Your task to perform on an android device: Open privacy settings Image 0: 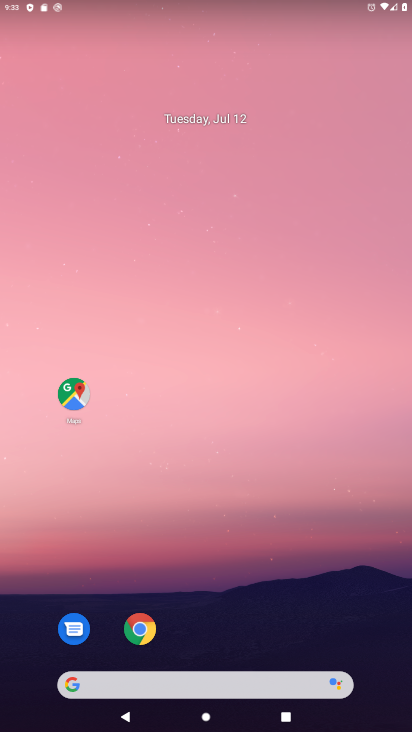
Step 0: drag from (358, 639) to (343, 151)
Your task to perform on an android device: Open privacy settings Image 1: 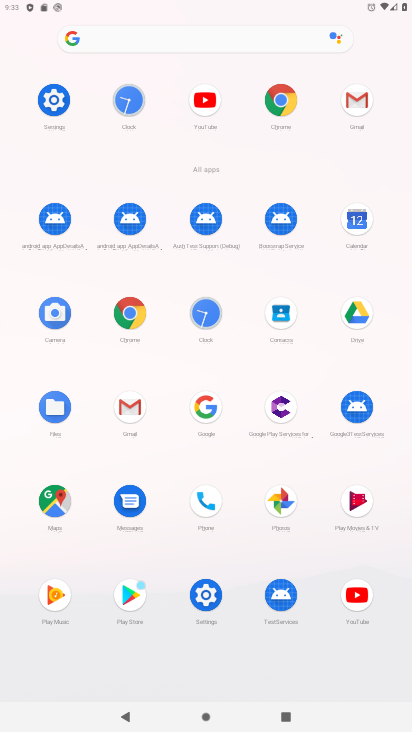
Step 1: click (203, 587)
Your task to perform on an android device: Open privacy settings Image 2: 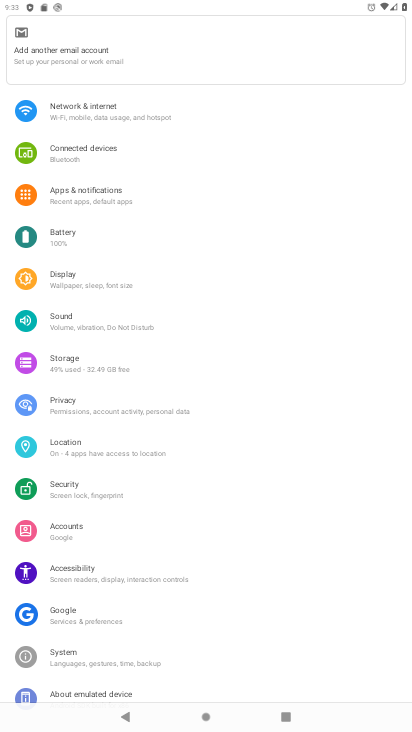
Step 2: click (68, 404)
Your task to perform on an android device: Open privacy settings Image 3: 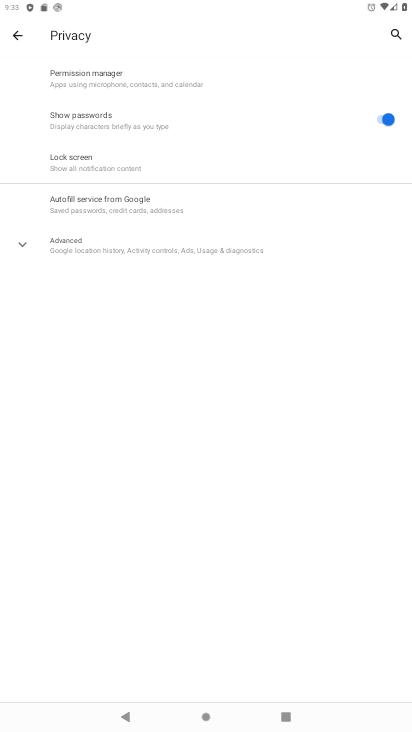
Step 3: click (26, 240)
Your task to perform on an android device: Open privacy settings Image 4: 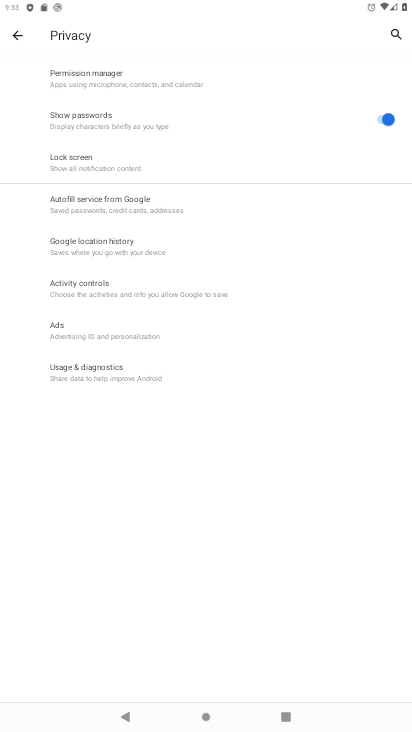
Step 4: task complete